Your task to perform on an android device: change the upload size in google photos Image 0: 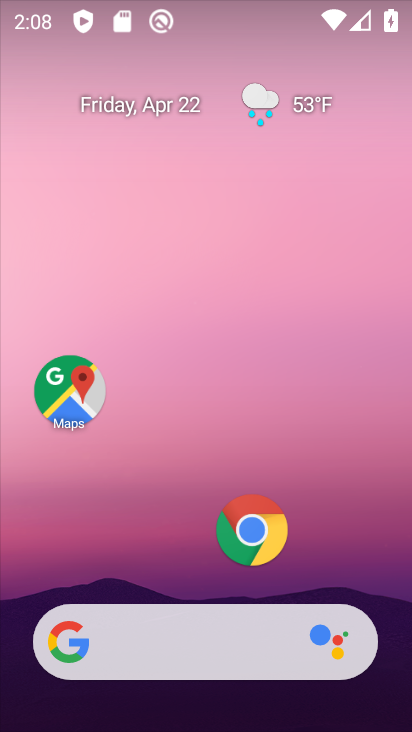
Step 0: drag from (185, 604) to (148, 339)
Your task to perform on an android device: change the upload size in google photos Image 1: 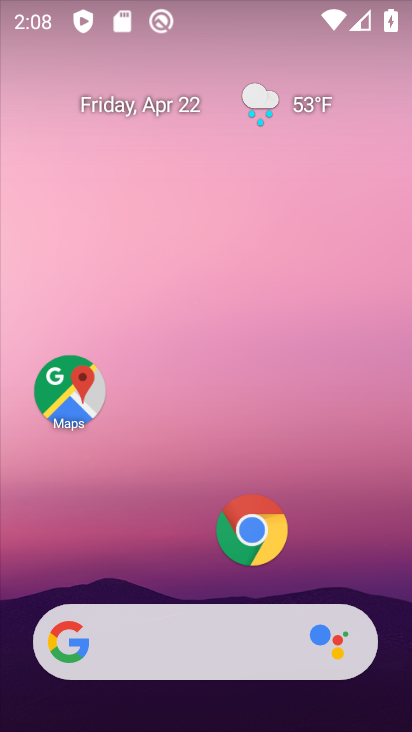
Step 1: drag from (164, 622) to (79, 163)
Your task to perform on an android device: change the upload size in google photos Image 2: 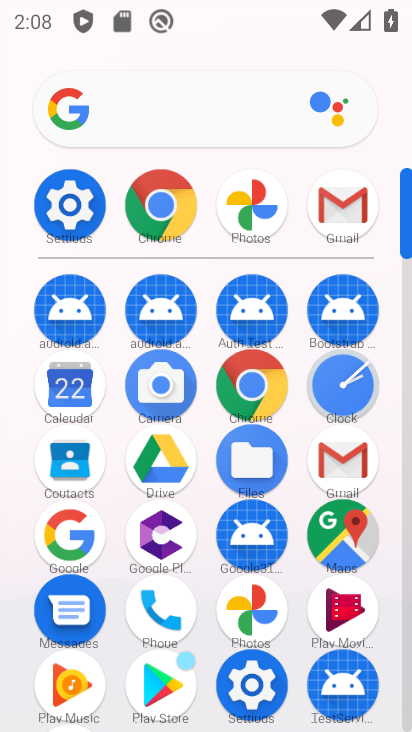
Step 2: click (251, 603)
Your task to perform on an android device: change the upload size in google photos Image 3: 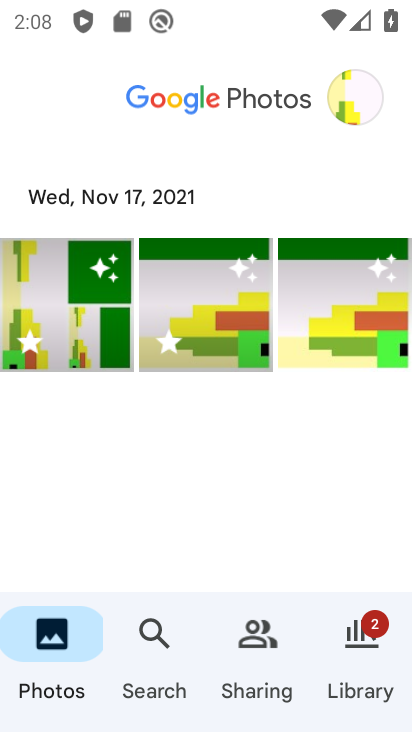
Step 3: click (360, 80)
Your task to perform on an android device: change the upload size in google photos Image 4: 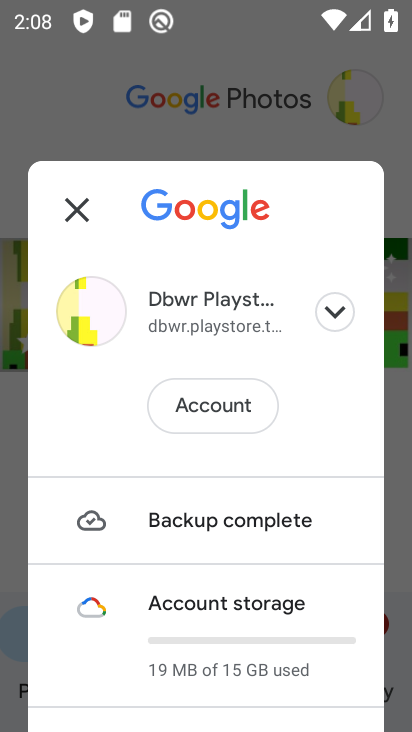
Step 4: drag from (303, 555) to (252, 156)
Your task to perform on an android device: change the upload size in google photos Image 5: 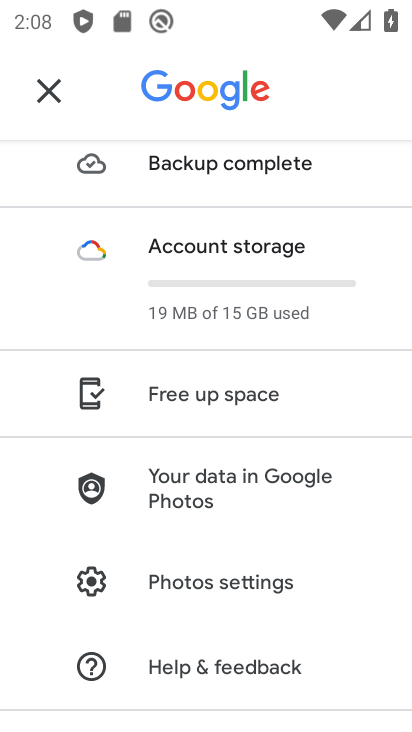
Step 5: click (247, 584)
Your task to perform on an android device: change the upload size in google photos Image 6: 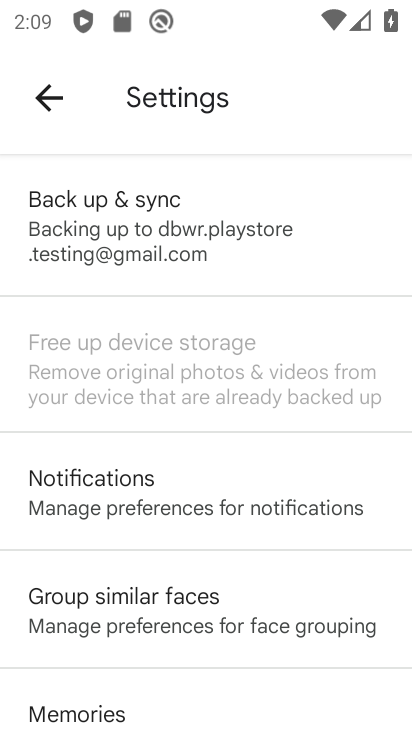
Step 6: drag from (183, 514) to (261, 699)
Your task to perform on an android device: change the upload size in google photos Image 7: 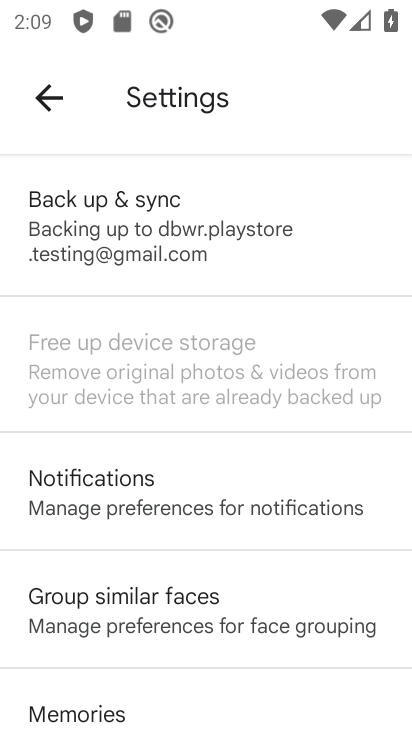
Step 7: click (153, 233)
Your task to perform on an android device: change the upload size in google photos Image 8: 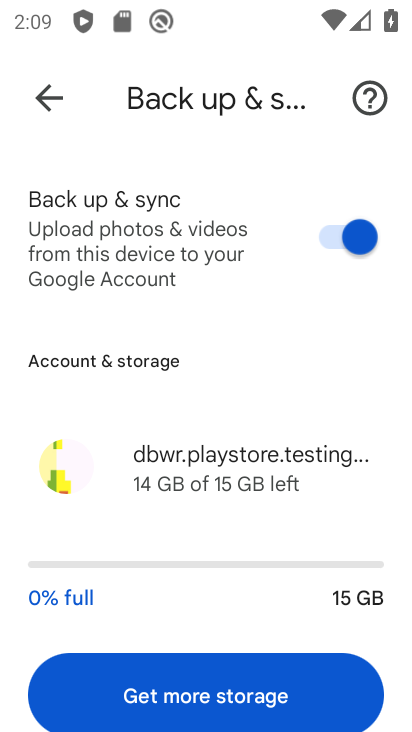
Step 8: drag from (288, 582) to (187, 140)
Your task to perform on an android device: change the upload size in google photos Image 9: 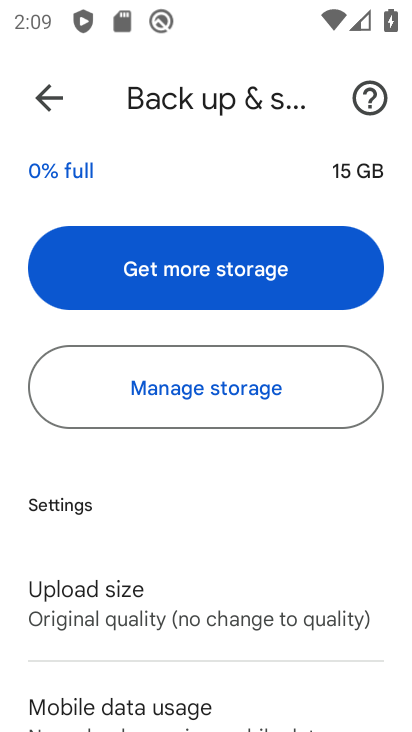
Step 9: click (170, 618)
Your task to perform on an android device: change the upload size in google photos Image 10: 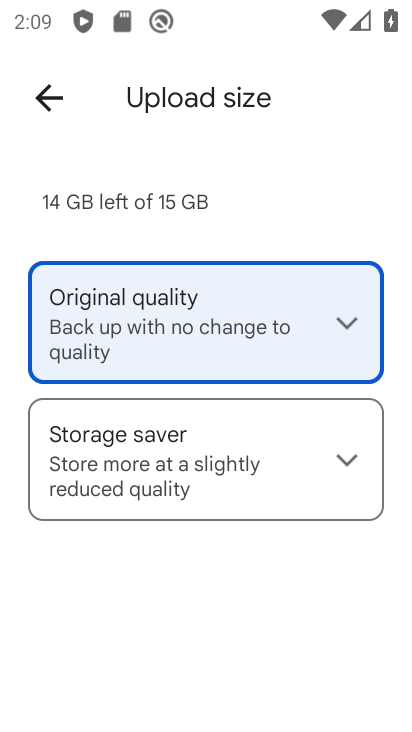
Step 10: click (158, 454)
Your task to perform on an android device: change the upload size in google photos Image 11: 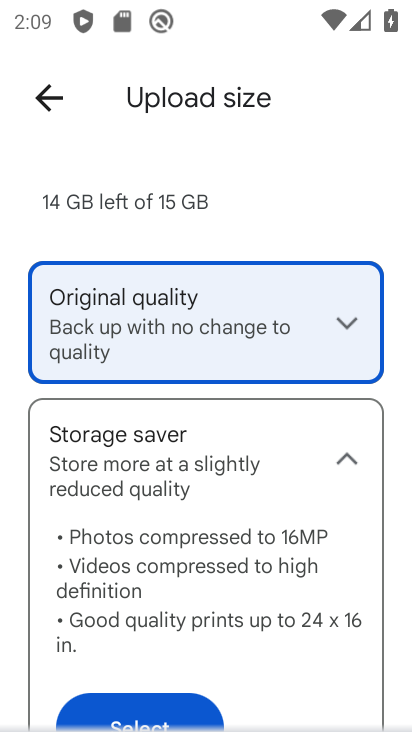
Step 11: click (161, 714)
Your task to perform on an android device: change the upload size in google photos Image 12: 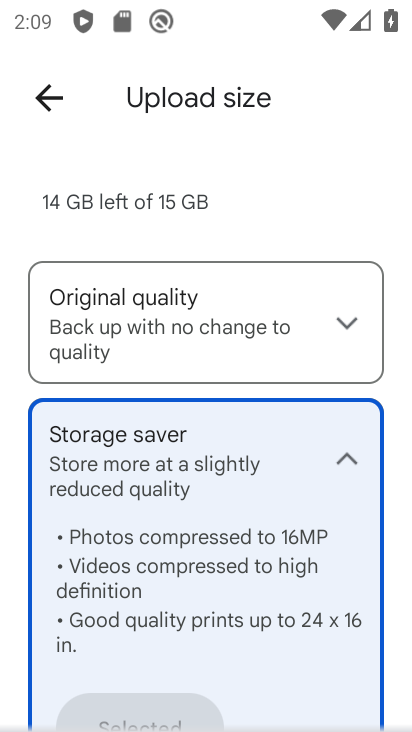
Step 12: task complete